Your task to perform on an android device: Go to Wikipedia Image 0: 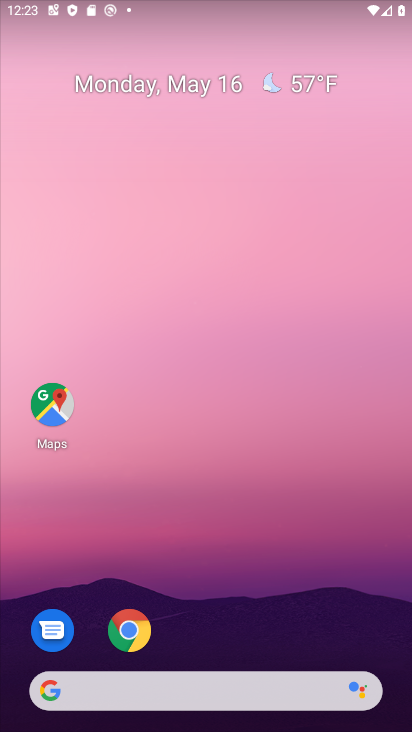
Step 0: click (128, 621)
Your task to perform on an android device: Go to Wikipedia Image 1: 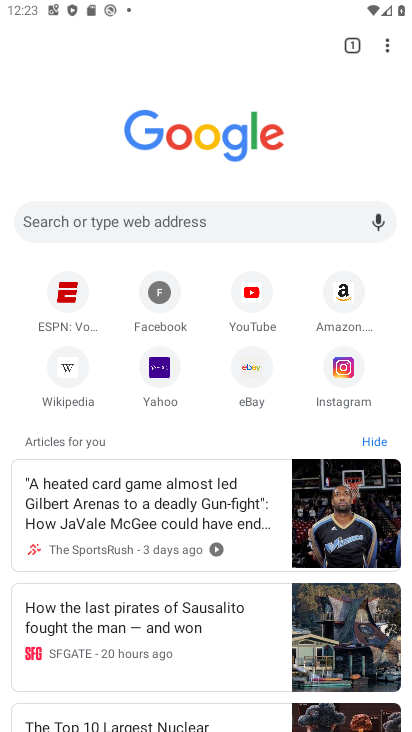
Step 1: click (67, 373)
Your task to perform on an android device: Go to Wikipedia Image 2: 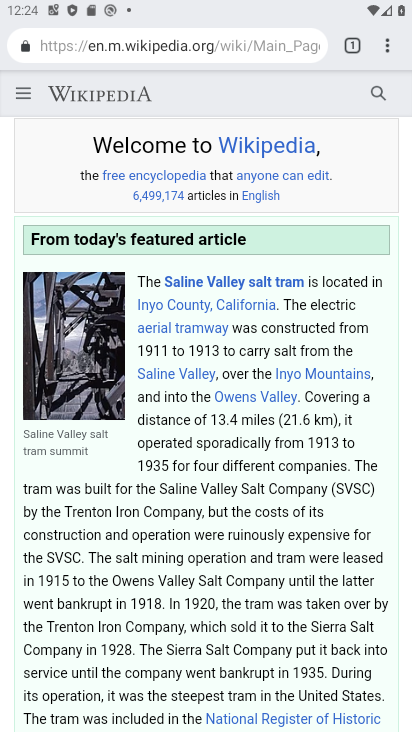
Step 2: task complete